Your task to perform on an android device: clear all cookies in the chrome app Image 0: 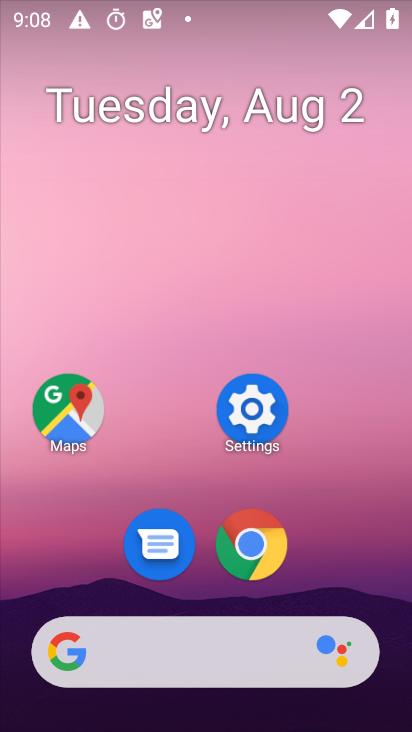
Step 0: click (250, 552)
Your task to perform on an android device: clear all cookies in the chrome app Image 1: 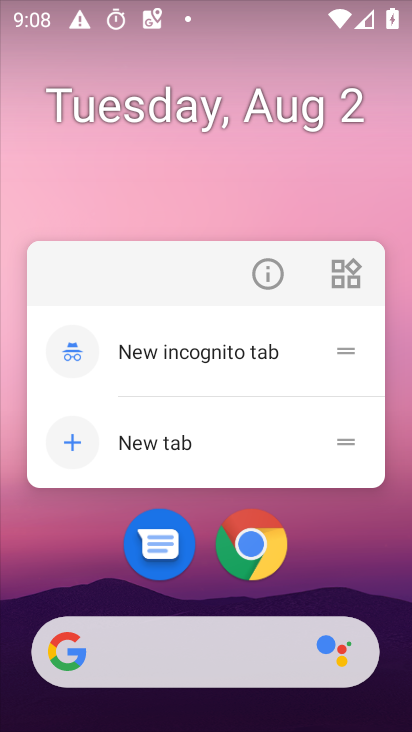
Step 1: click (250, 553)
Your task to perform on an android device: clear all cookies in the chrome app Image 2: 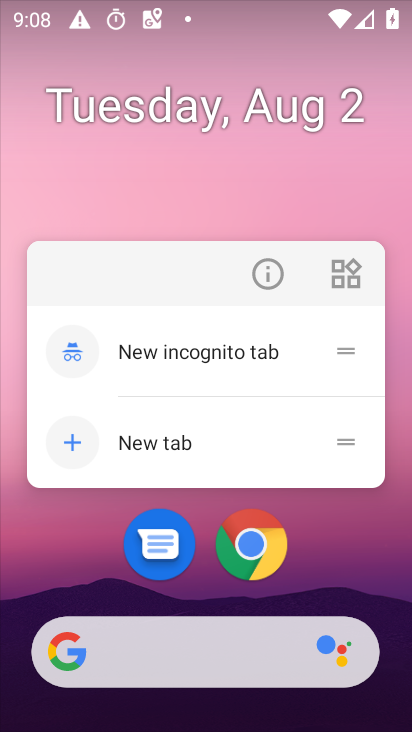
Step 2: click (250, 553)
Your task to perform on an android device: clear all cookies in the chrome app Image 3: 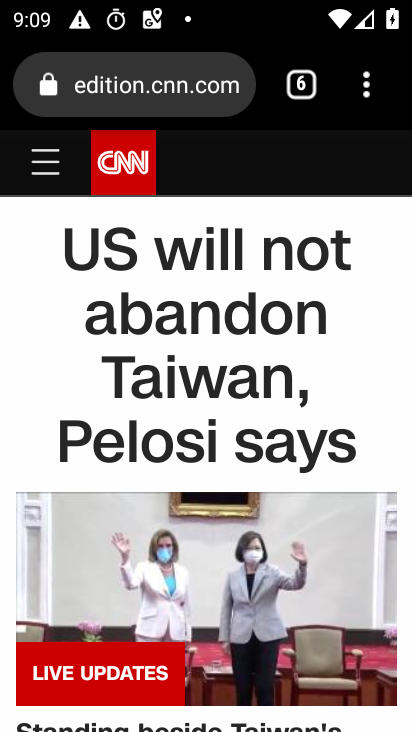
Step 3: drag from (365, 87) to (229, 597)
Your task to perform on an android device: clear all cookies in the chrome app Image 4: 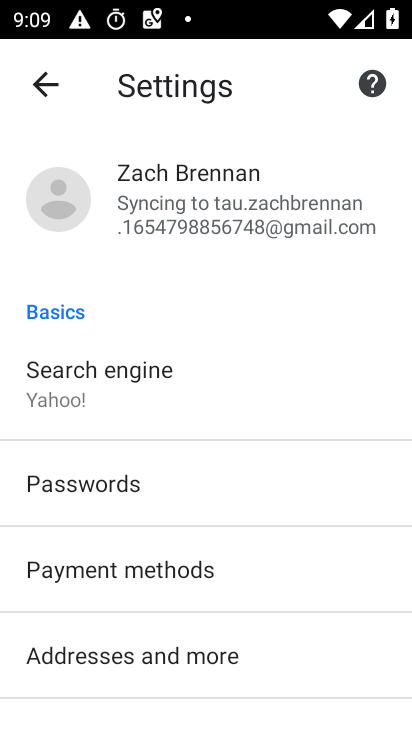
Step 4: drag from (202, 627) to (272, 252)
Your task to perform on an android device: clear all cookies in the chrome app Image 5: 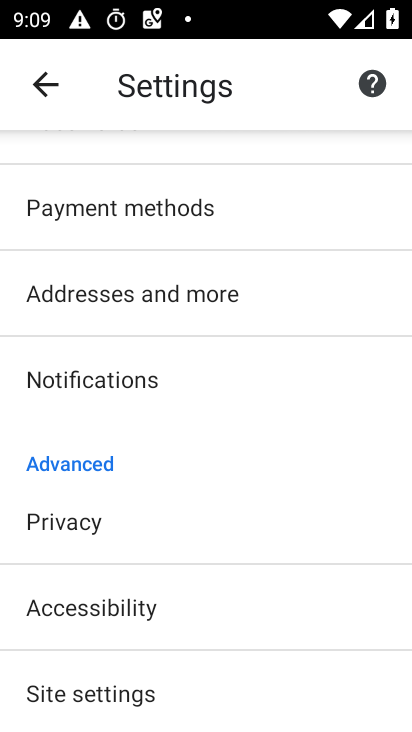
Step 5: click (71, 528)
Your task to perform on an android device: clear all cookies in the chrome app Image 6: 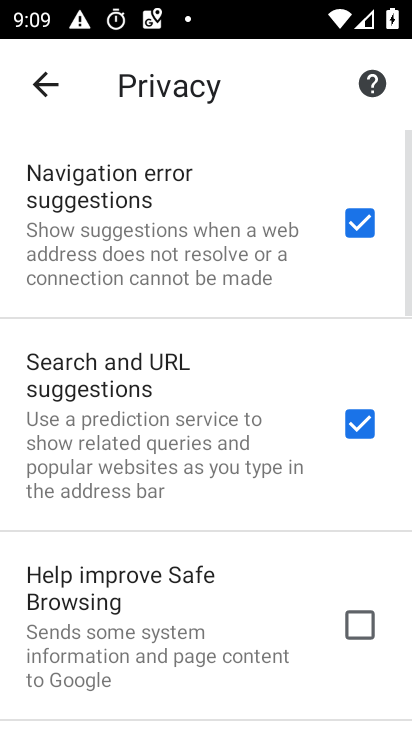
Step 6: drag from (206, 615) to (306, 131)
Your task to perform on an android device: clear all cookies in the chrome app Image 7: 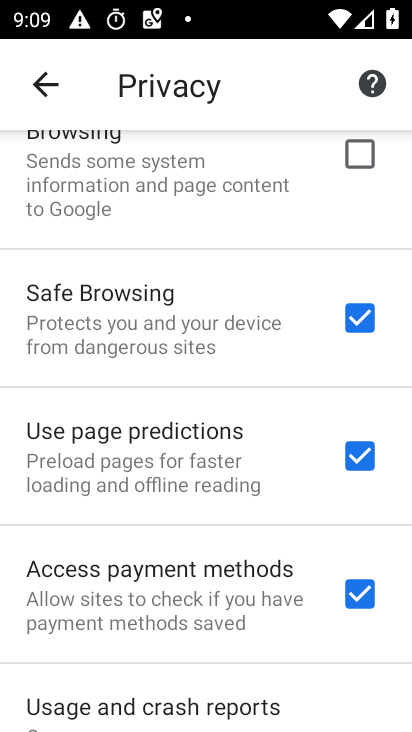
Step 7: drag from (185, 660) to (321, 123)
Your task to perform on an android device: clear all cookies in the chrome app Image 8: 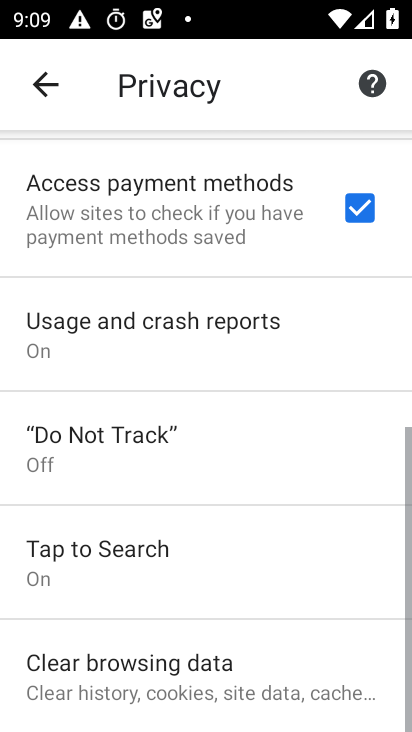
Step 8: click (156, 687)
Your task to perform on an android device: clear all cookies in the chrome app Image 9: 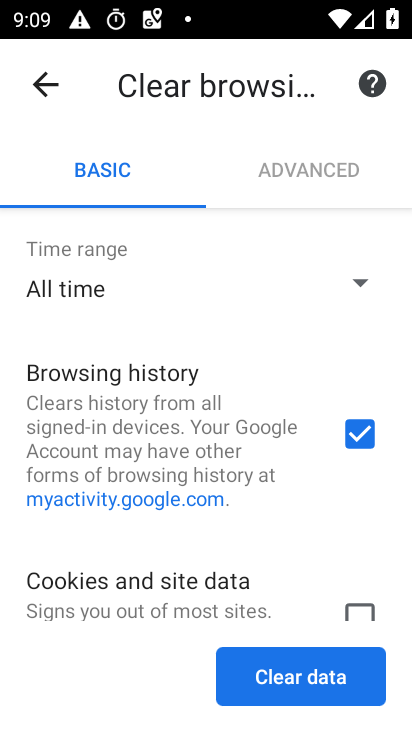
Step 9: click (362, 439)
Your task to perform on an android device: clear all cookies in the chrome app Image 10: 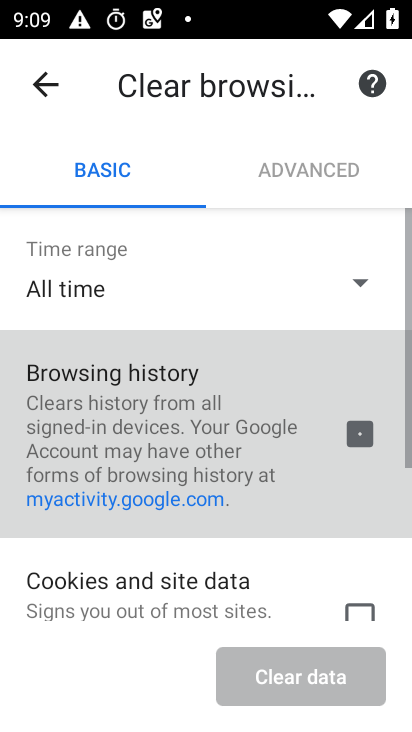
Step 10: drag from (246, 549) to (305, 251)
Your task to perform on an android device: clear all cookies in the chrome app Image 11: 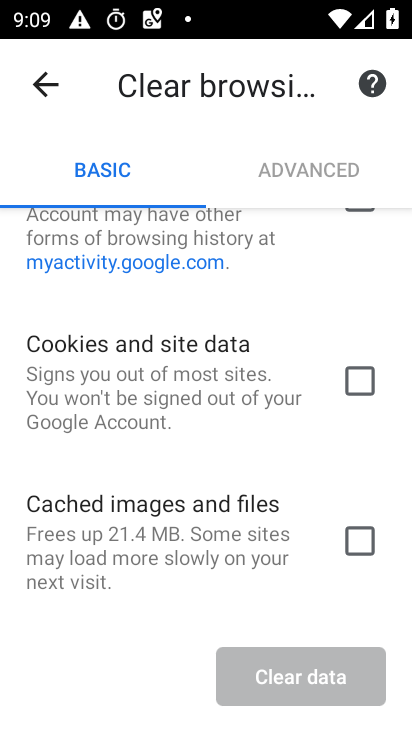
Step 11: click (362, 384)
Your task to perform on an android device: clear all cookies in the chrome app Image 12: 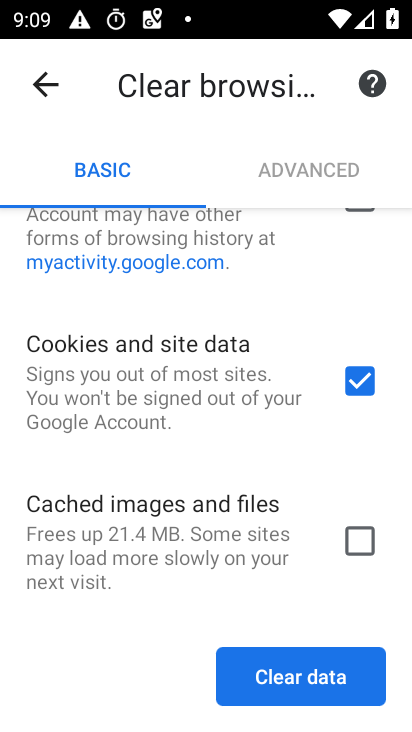
Step 12: click (310, 685)
Your task to perform on an android device: clear all cookies in the chrome app Image 13: 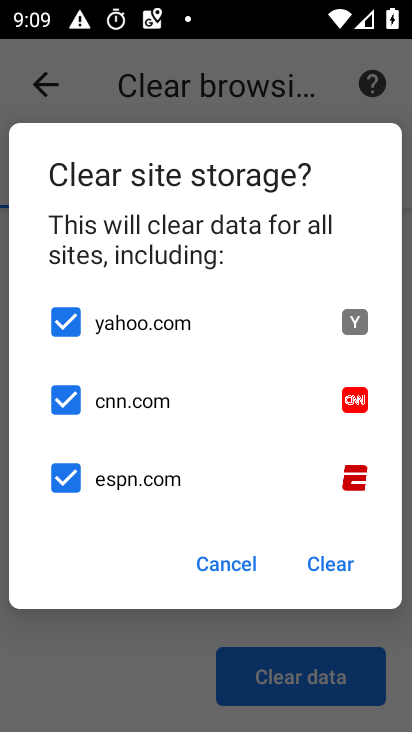
Step 13: click (333, 564)
Your task to perform on an android device: clear all cookies in the chrome app Image 14: 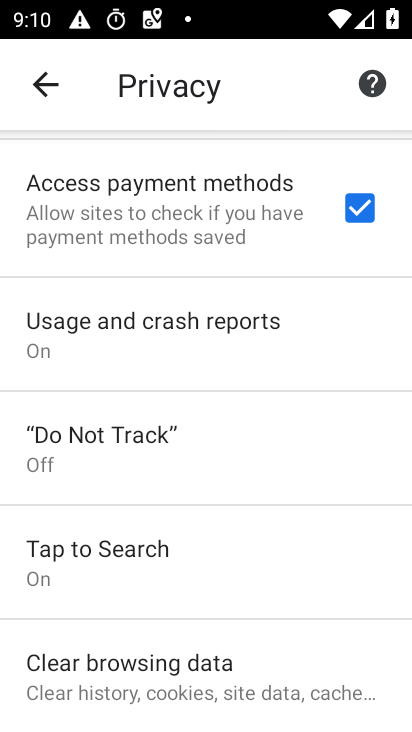
Step 14: task complete